Your task to perform on an android device: turn on showing notifications on the lock screen Image 0: 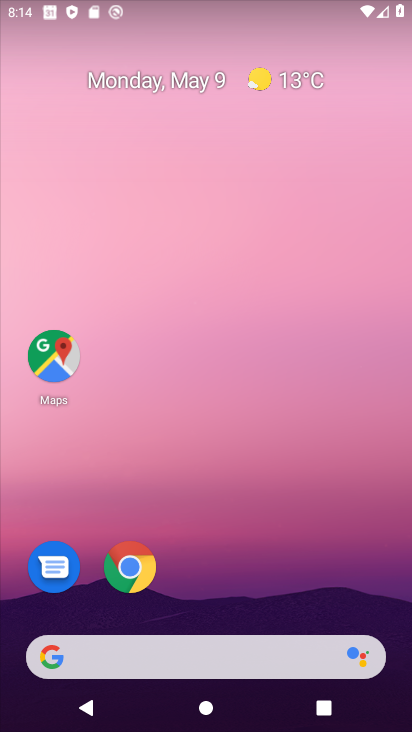
Step 0: drag from (243, 523) to (210, 33)
Your task to perform on an android device: turn on showing notifications on the lock screen Image 1: 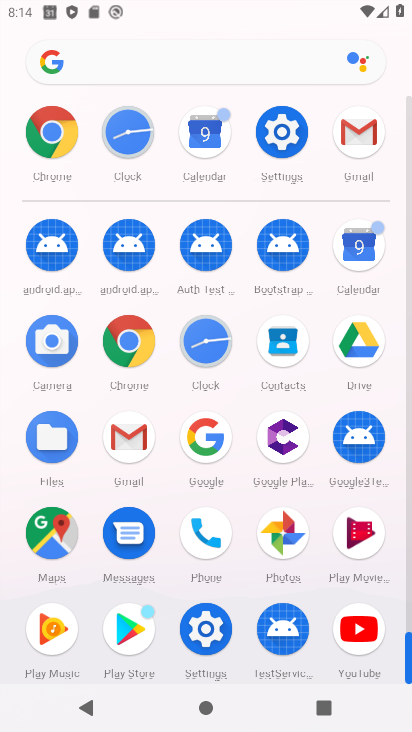
Step 1: click (280, 119)
Your task to perform on an android device: turn on showing notifications on the lock screen Image 2: 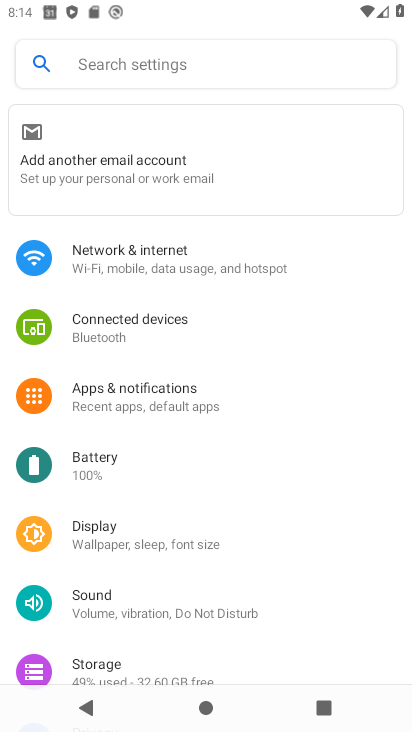
Step 2: click (217, 394)
Your task to perform on an android device: turn on showing notifications on the lock screen Image 3: 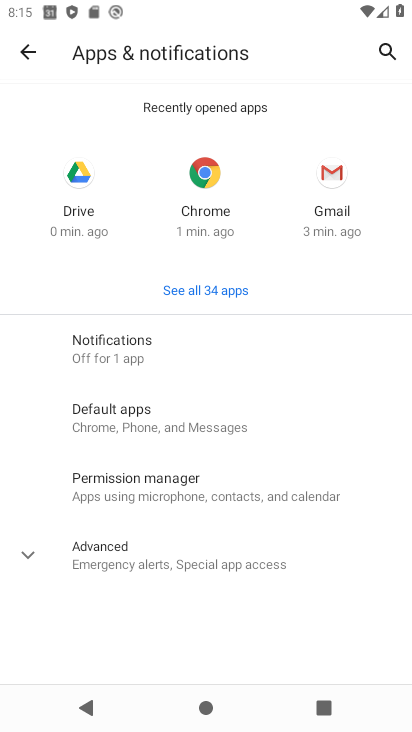
Step 3: click (155, 339)
Your task to perform on an android device: turn on showing notifications on the lock screen Image 4: 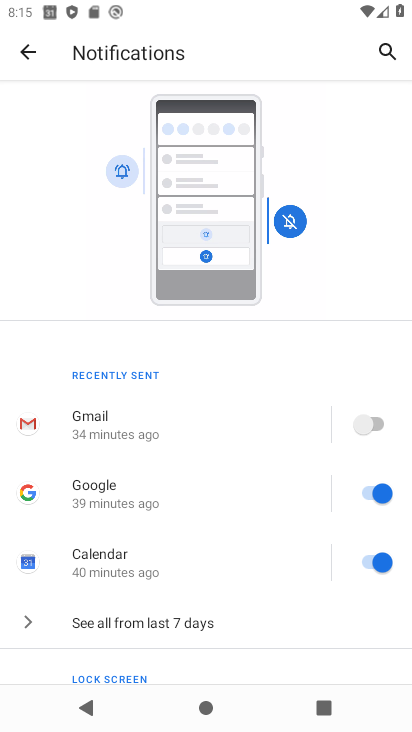
Step 4: task complete